Your task to perform on an android device: search for starred emails in the gmail app Image 0: 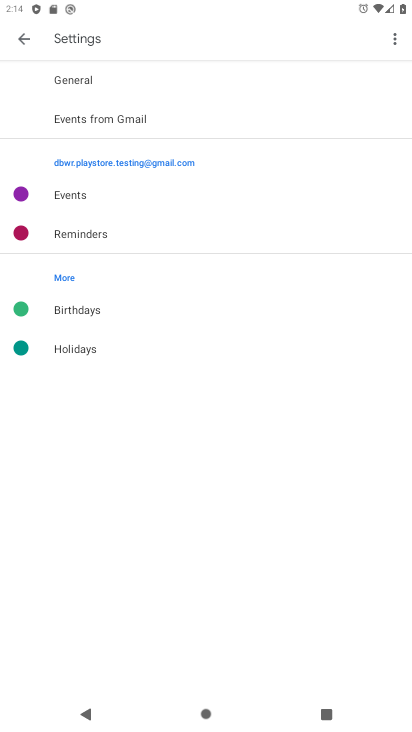
Step 0: press home button
Your task to perform on an android device: search for starred emails in the gmail app Image 1: 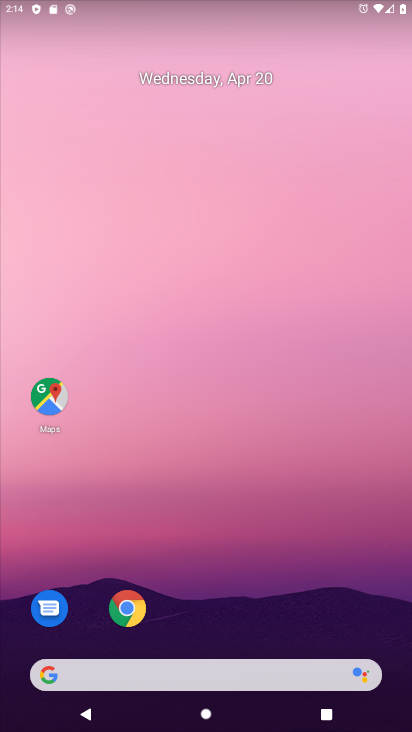
Step 1: drag from (266, 602) to (108, 55)
Your task to perform on an android device: search for starred emails in the gmail app Image 2: 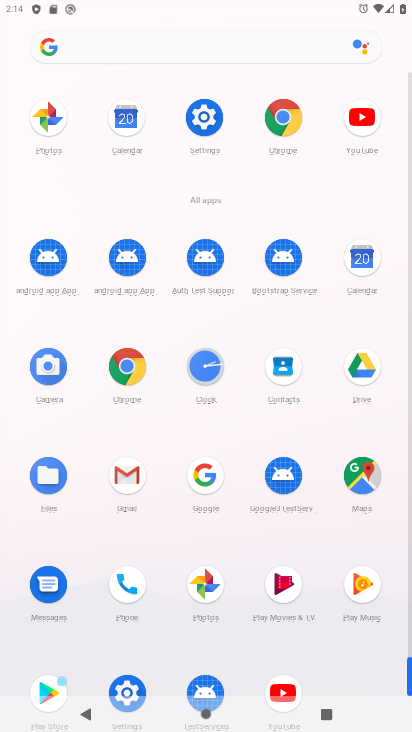
Step 2: click (119, 478)
Your task to perform on an android device: search for starred emails in the gmail app Image 3: 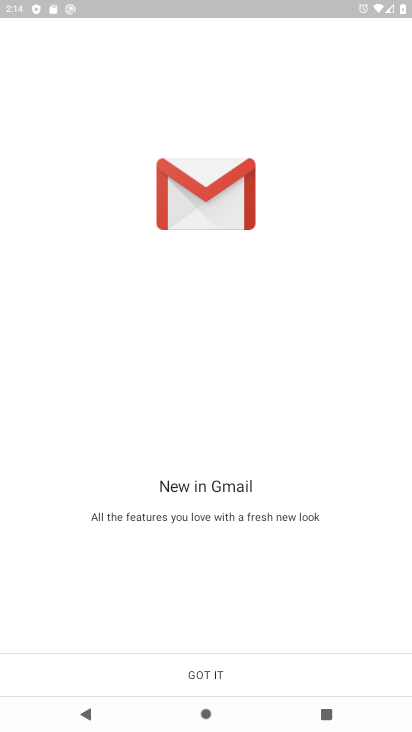
Step 3: click (218, 687)
Your task to perform on an android device: search for starred emails in the gmail app Image 4: 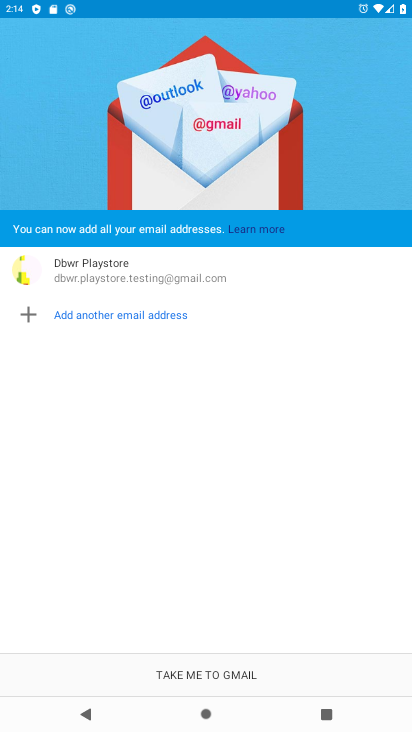
Step 4: click (223, 684)
Your task to perform on an android device: search for starred emails in the gmail app Image 5: 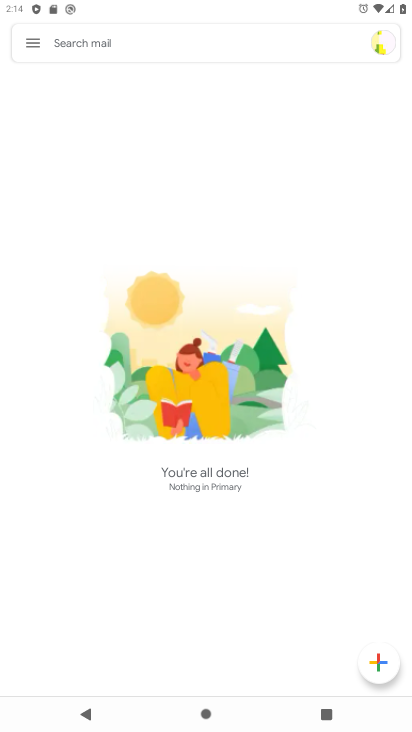
Step 5: click (35, 39)
Your task to perform on an android device: search for starred emails in the gmail app Image 6: 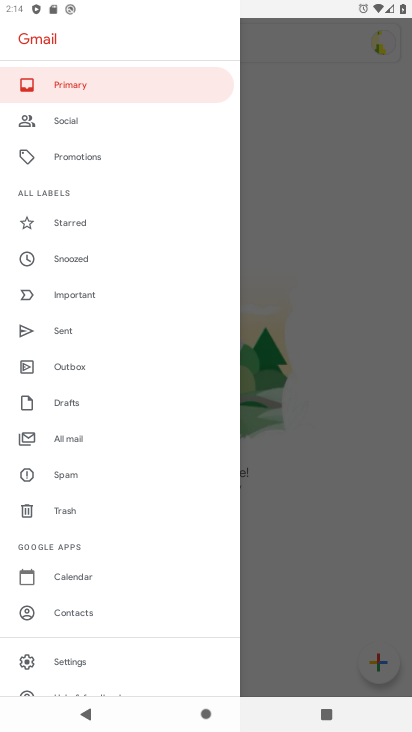
Step 6: click (68, 227)
Your task to perform on an android device: search for starred emails in the gmail app Image 7: 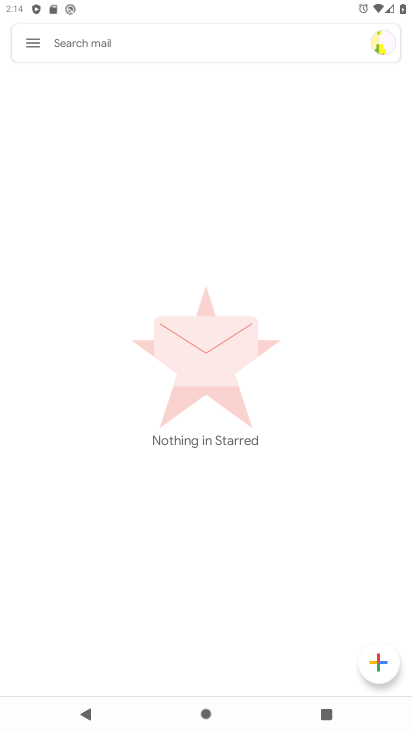
Step 7: task complete